Your task to perform on an android device: Go to Google maps Image 0: 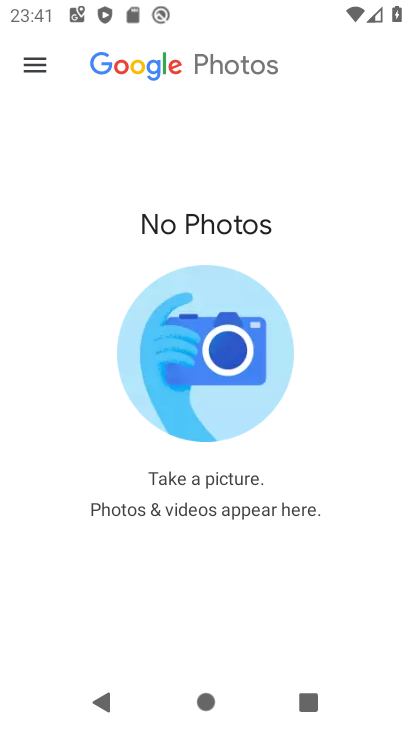
Step 0: press home button
Your task to perform on an android device: Go to Google maps Image 1: 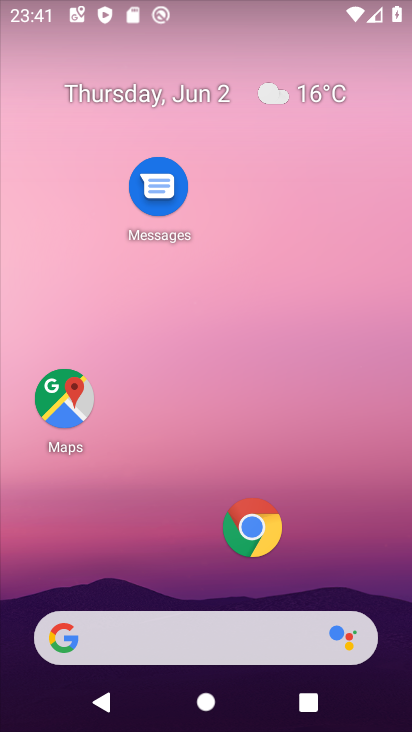
Step 1: click (64, 395)
Your task to perform on an android device: Go to Google maps Image 2: 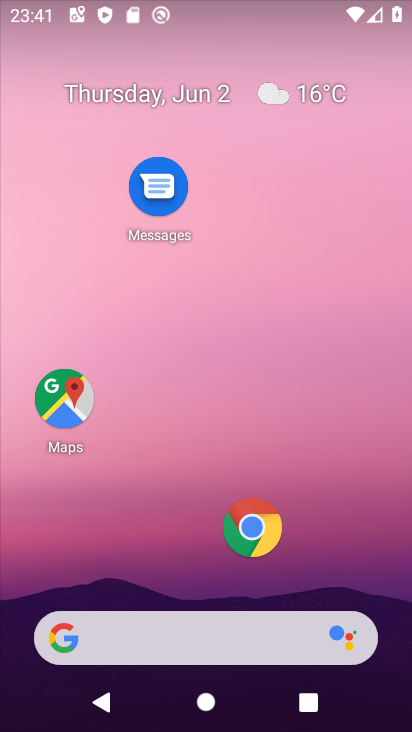
Step 2: click (65, 396)
Your task to perform on an android device: Go to Google maps Image 3: 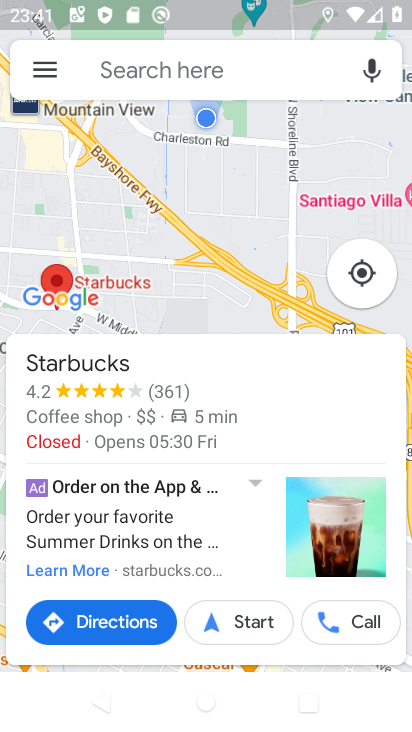
Step 3: task complete